Your task to perform on an android device: toggle notification dots Image 0: 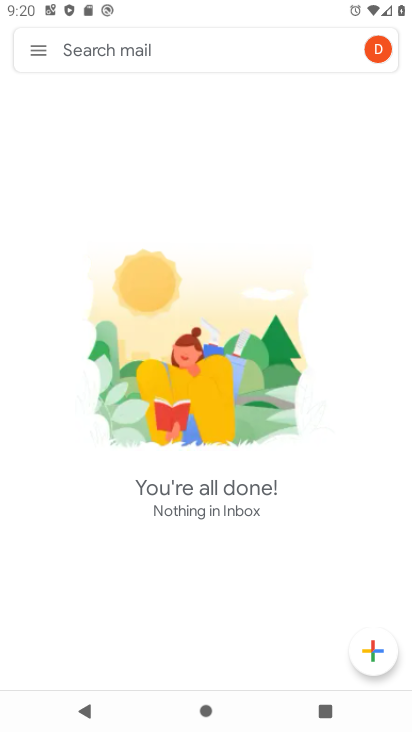
Step 0: press home button
Your task to perform on an android device: toggle notification dots Image 1: 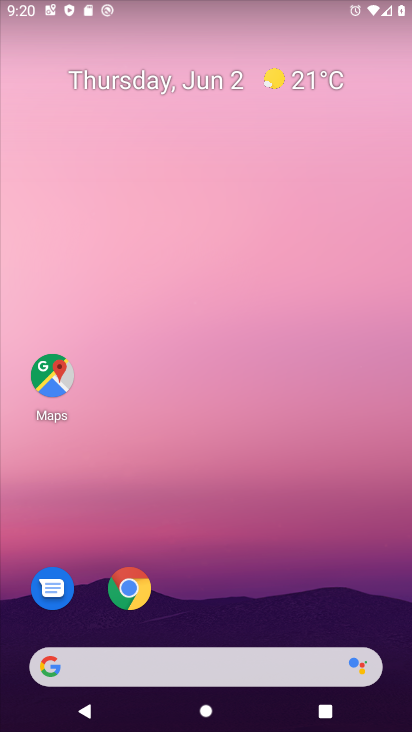
Step 1: drag from (215, 663) to (67, 10)
Your task to perform on an android device: toggle notification dots Image 2: 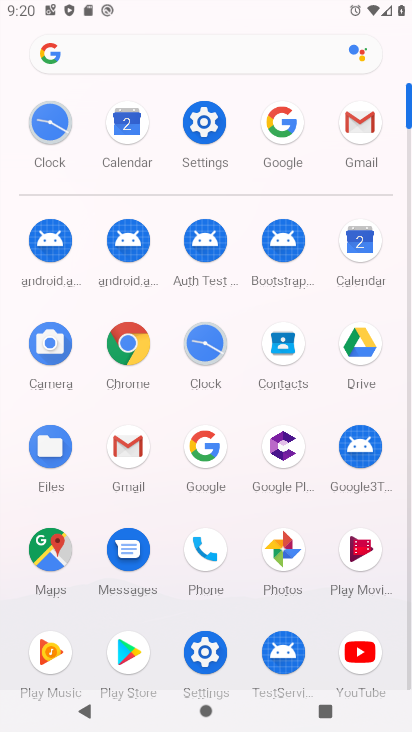
Step 2: click (213, 139)
Your task to perform on an android device: toggle notification dots Image 3: 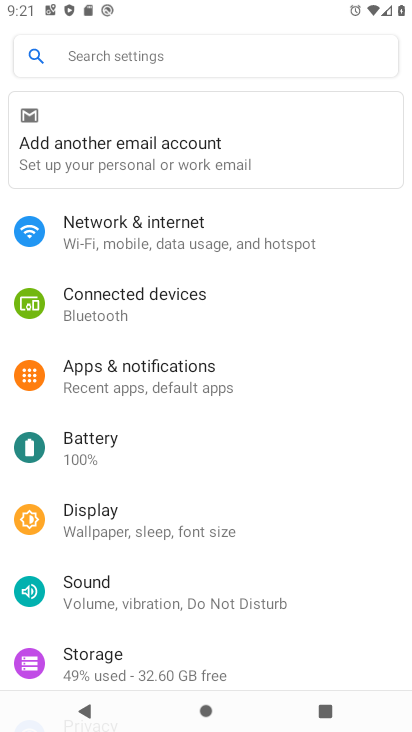
Step 3: click (191, 375)
Your task to perform on an android device: toggle notification dots Image 4: 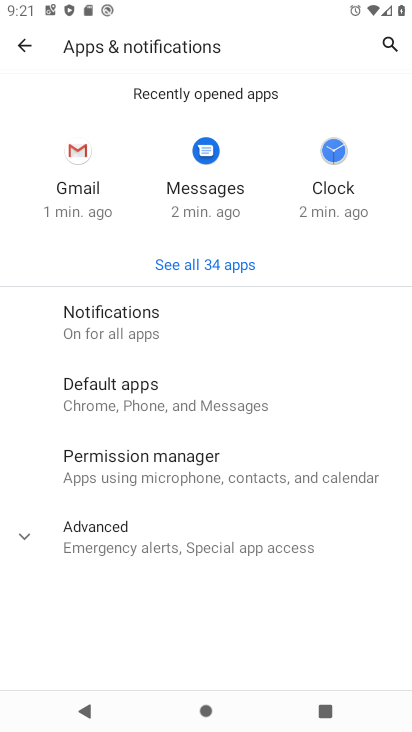
Step 4: click (172, 309)
Your task to perform on an android device: toggle notification dots Image 5: 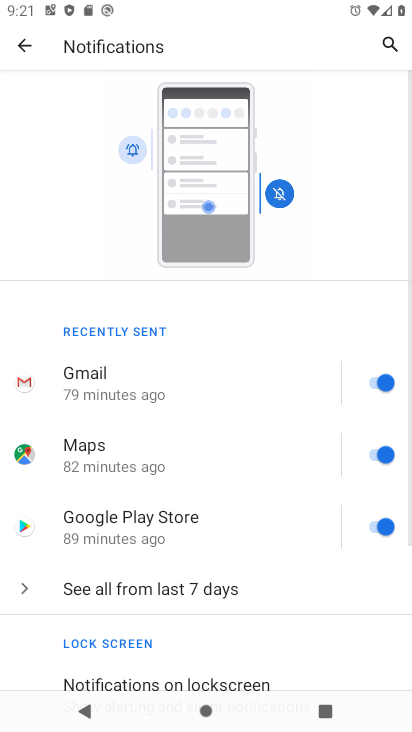
Step 5: drag from (121, 585) to (116, 211)
Your task to perform on an android device: toggle notification dots Image 6: 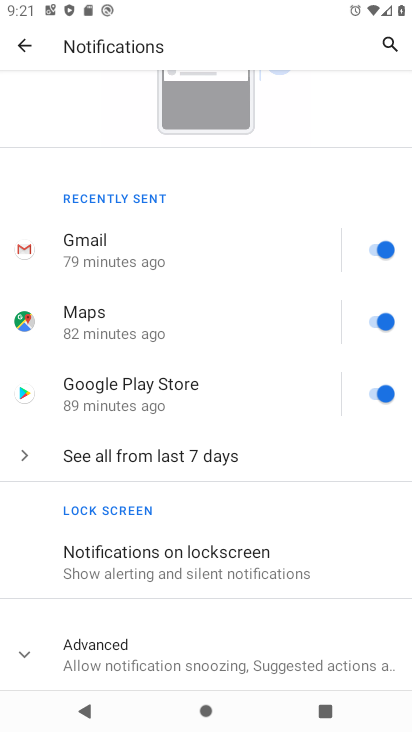
Step 6: click (122, 642)
Your task to perform on an android device: toggle notification dots Image 7: 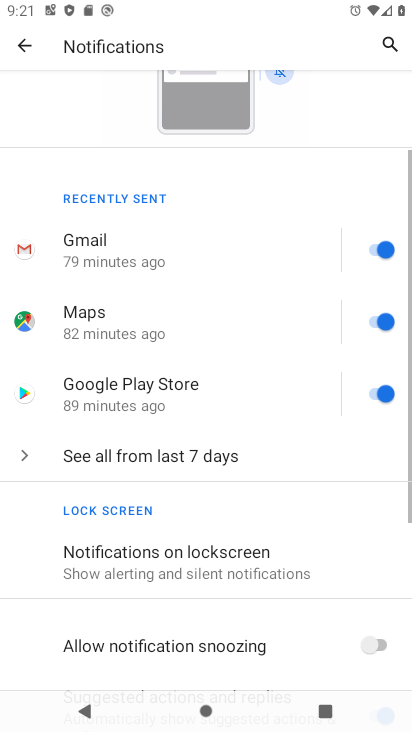
Step 7: drag from (142, 615) to (134, 312)
Your task to perform on an android device: toggle notification dots Image 8: 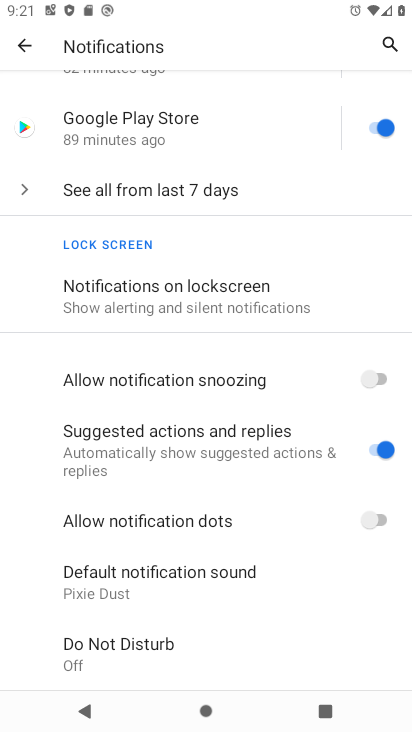
Step 8: click (368, 515)
Your task to perform on an android device: toggle notification dots Image 9: 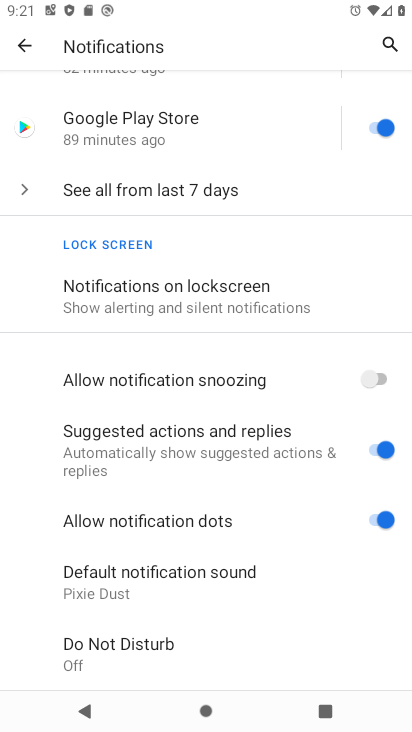
Step 9: task complete